Your task to perform on an android device: turn off notifications settings in the gmail app Image 0: 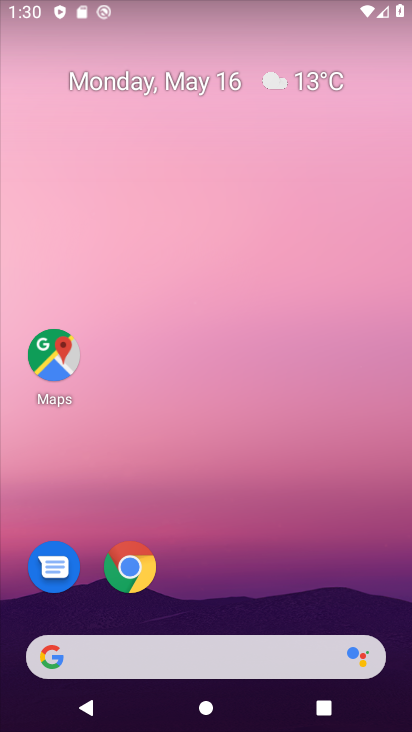
Step 0: drag from (178, 618) to (271, 192)
Your task to perform on an android device: turn off notifications settings in the gmail app Image 1: 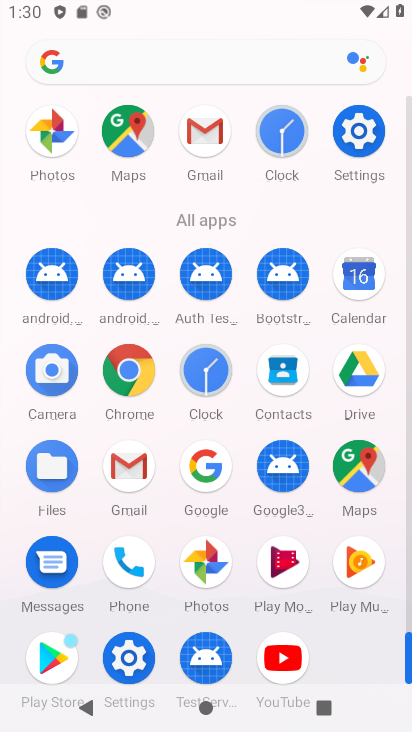
Step 1: drag from (184, 573) to (213, 408)
Your task to perform on an android device: turn off notifications settings in the gmail app Image 2: 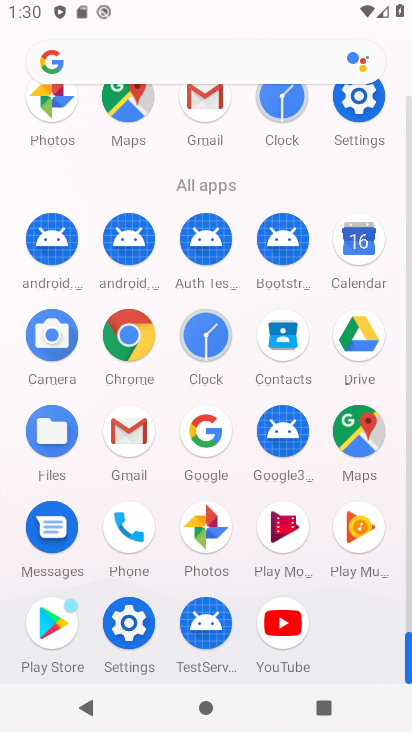
Step 2: click (124, 436)
Your task to perform on an android device: turn off notifications settings in the gmail app Image 3: 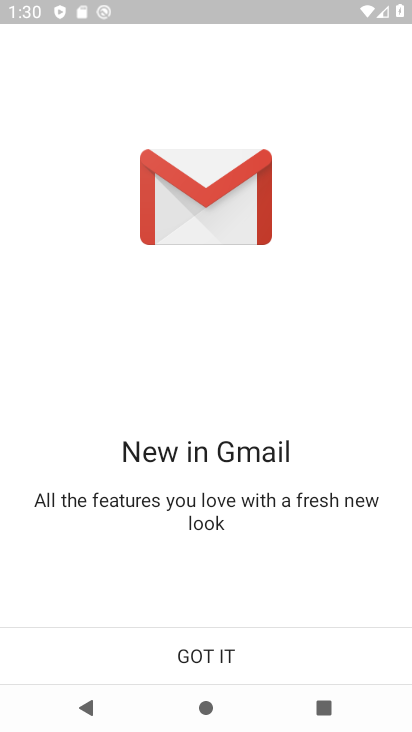
Step 3: click (202, 664)
Your task to perform on an android device: turn off notifications settings in the gmail app Image 4: 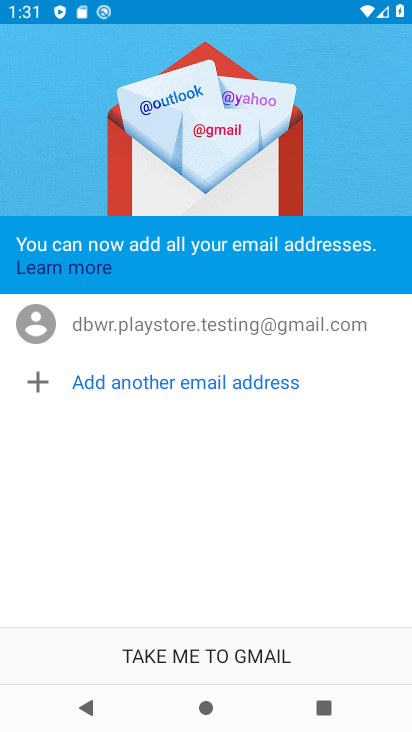
Step 4: click (202, 664)
Your task to perform on an android device: turn off notifications settings in the gmail app Image 5: 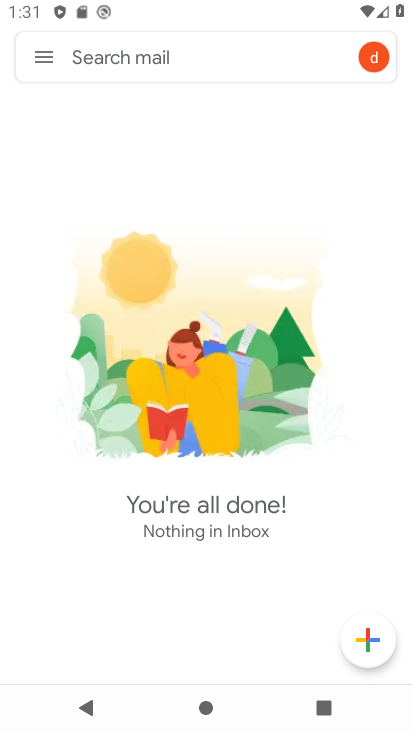
Step 5: click (48, 60)
Your task to perform on an android device: turn off notifications settings in the gmail app Image 6: 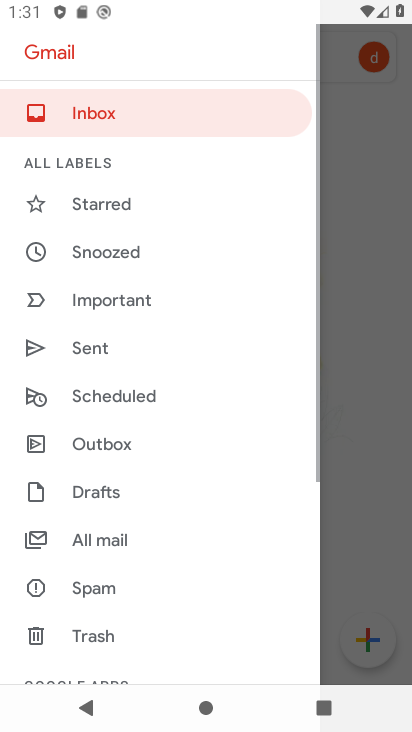
Step 6: drag from (129, 620) to (199, 277)
Your task to perform on an android device: turn off notifications settings in the gmail app Image 7: 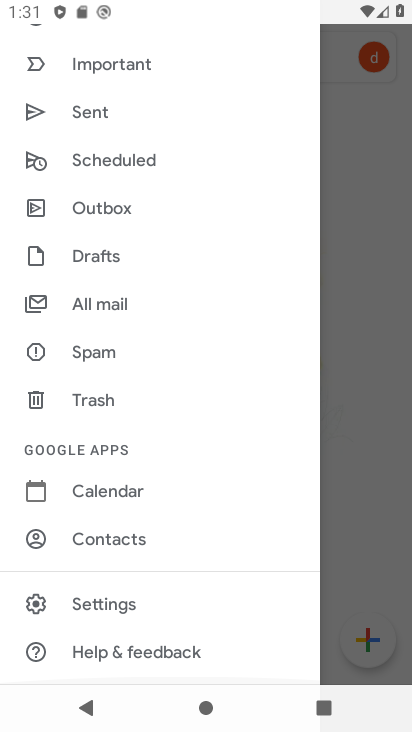
Step 7: click (146, 609)
Your task to perform on an android device: turn off notifications settings in the gmail app Image 8: 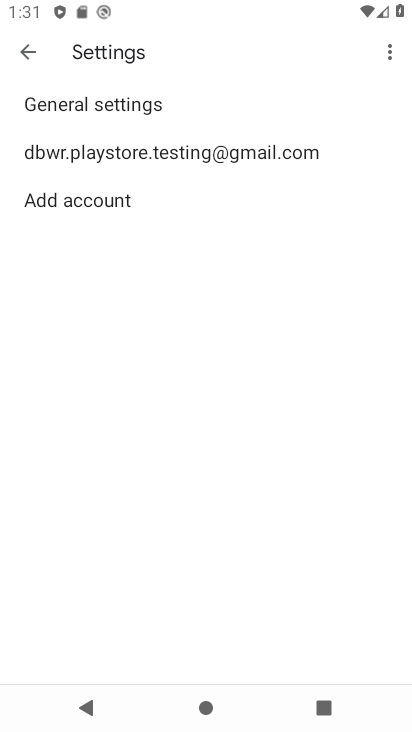
Step 8: click (242, 168)
Your task to perform on an android device: turn off notifications settings in the gmail app Image 9: 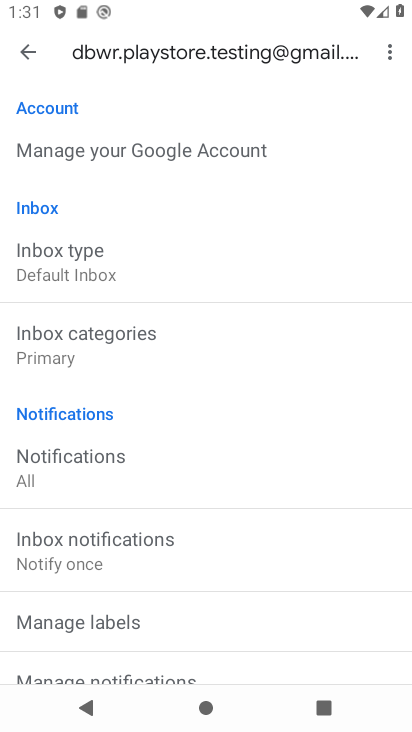
Step 9: drag from (188, 595) to (240, 335)
Your task to perform on an android device: turn off notifications settings in the gmail app Image 10: 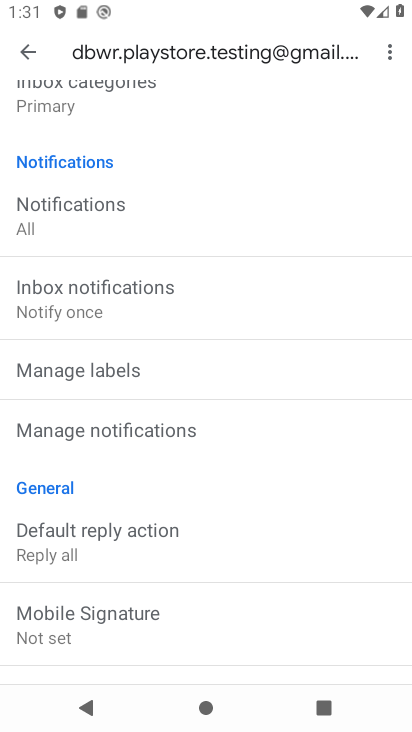
Step 10: click (171, 435)
Your task to perform on an android device: turn off notifications settings in the gmail app Image 11: 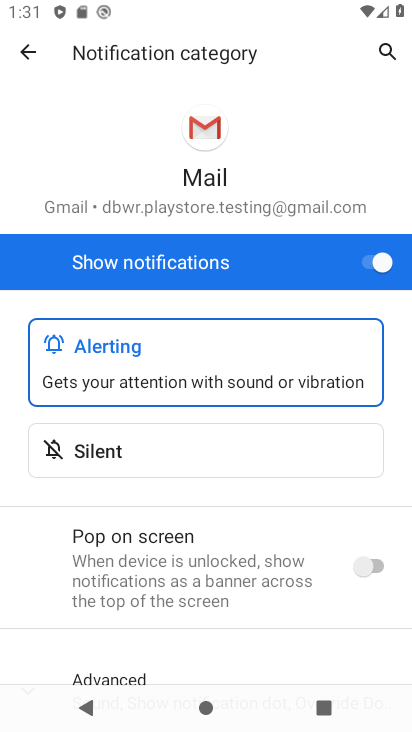
Step 11: drag from (188, 600) to (238, 401)
Your task to perform on an android device: turn off notifications settings in the gmail app Image 12: 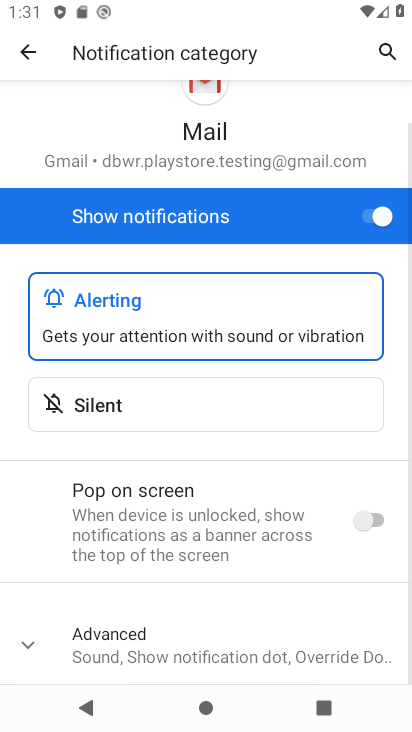
Step 12: click (371, 217)
Your task to perform on an android device: turn off notifications settings in the gmail app Image 13: 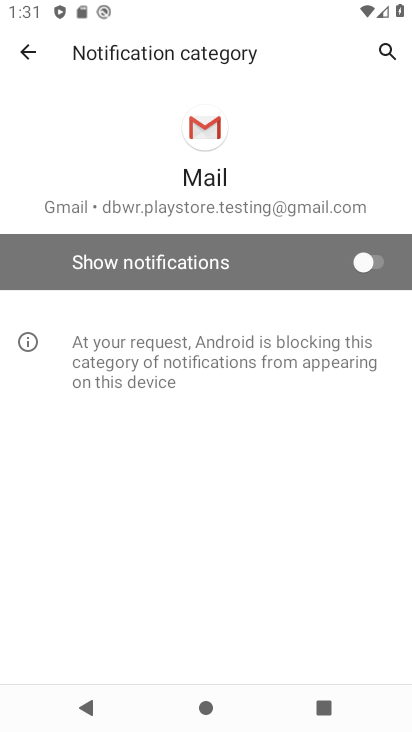
Step 13: task complete